Your task to perform on an android device: set the timer Image 0: 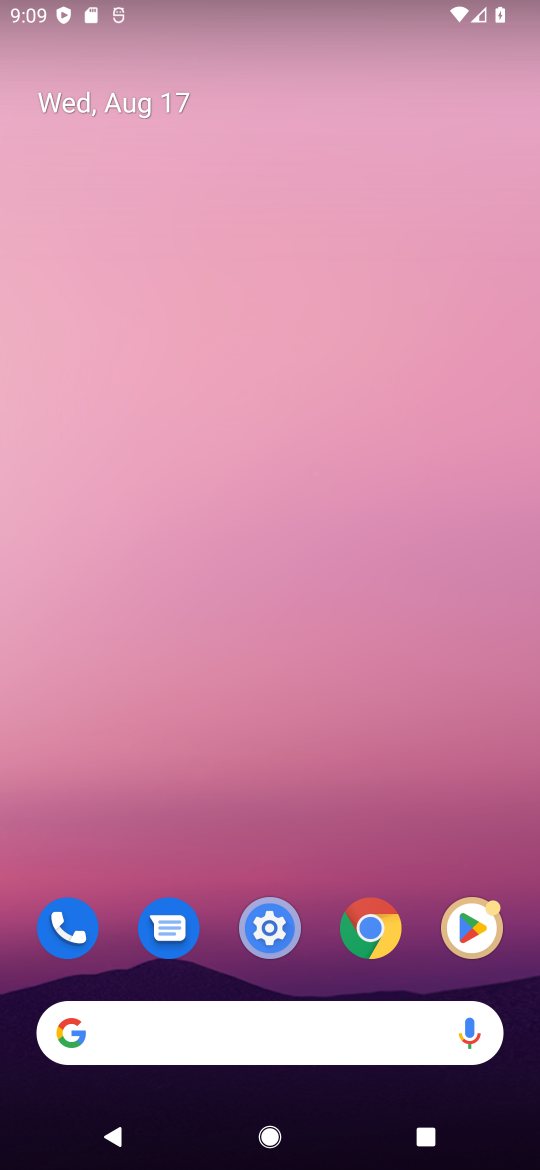
Step 0: drag from (382, 878) to (207, 45)
Your task to perform on an android device: set the timer Image 1: 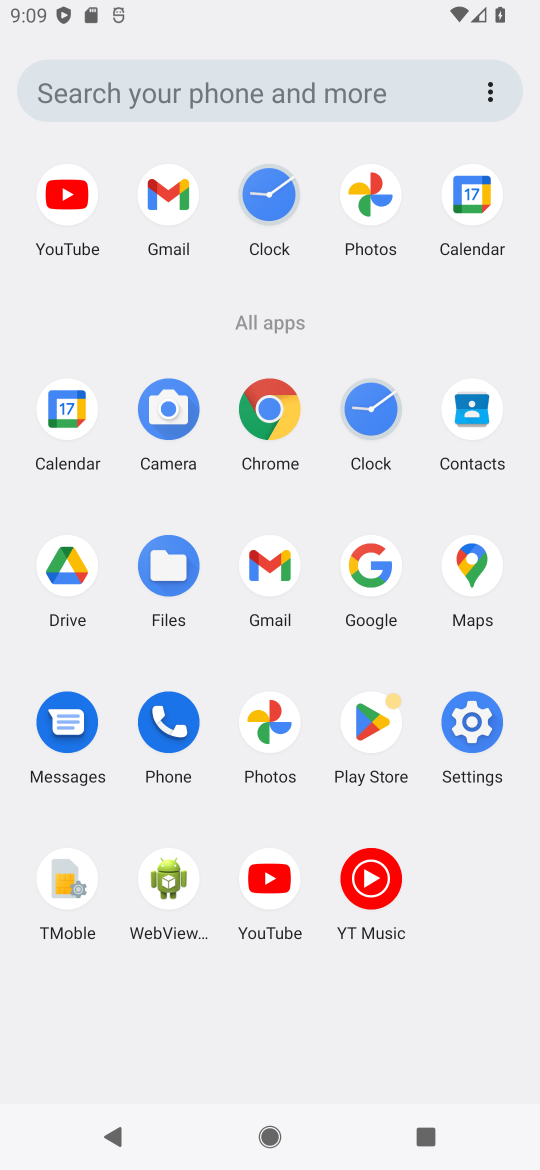
Step 1: click (377, 417)
Your task to perform on an android device: set the timer Image 2: 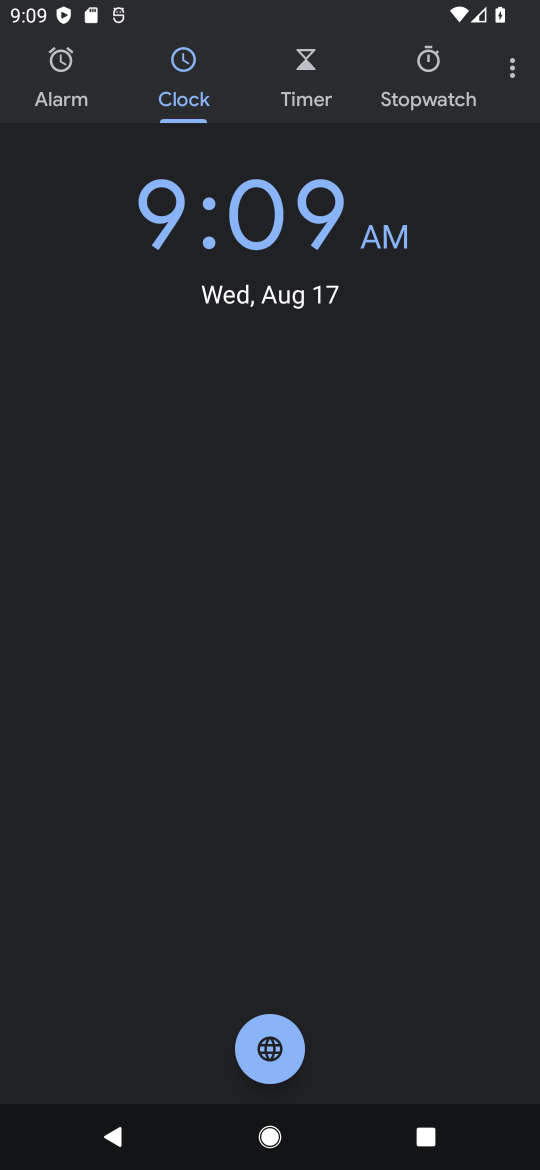
Step 2: click (302, 67)
Your task to perform on an android device: set the timer Image 3: 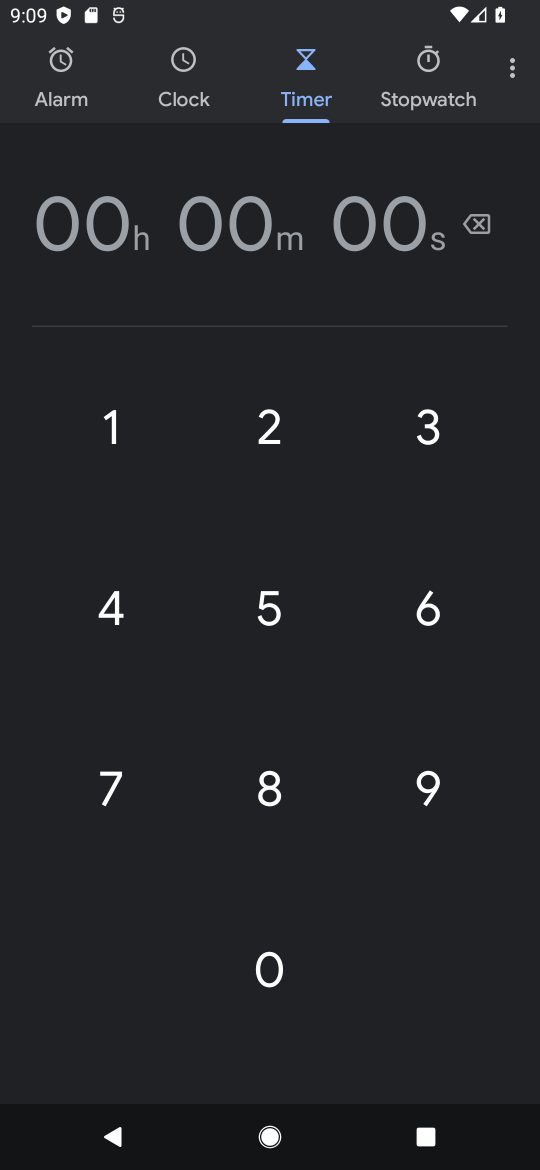
Step 3: click (289, 438)
Your task to perform on an android device: set the timer Image 4: 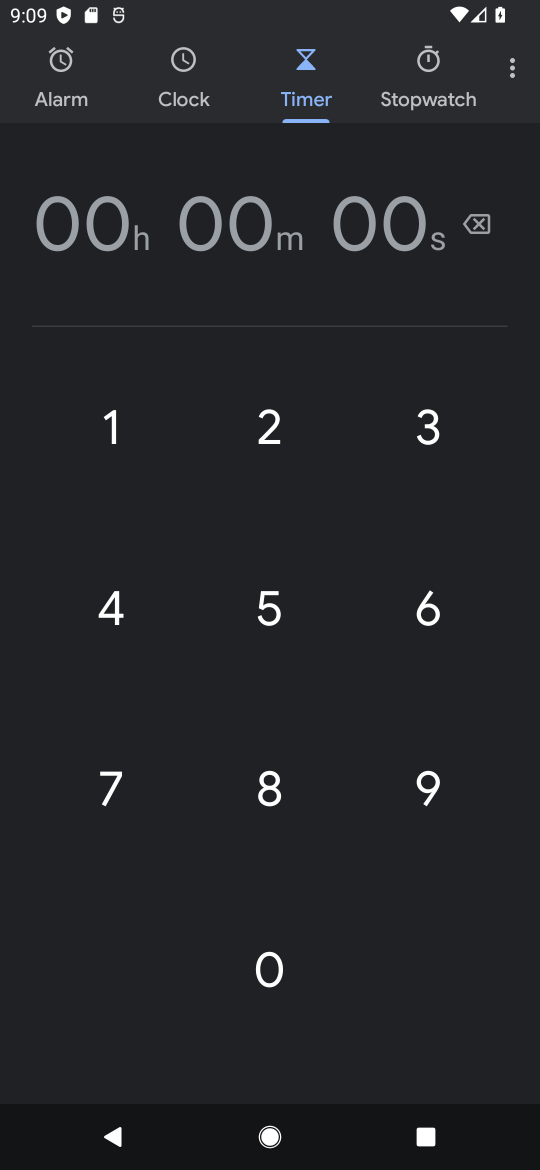
Step 4: click (289, 438)
Your task to perform on an android device: set the timer Image 5: 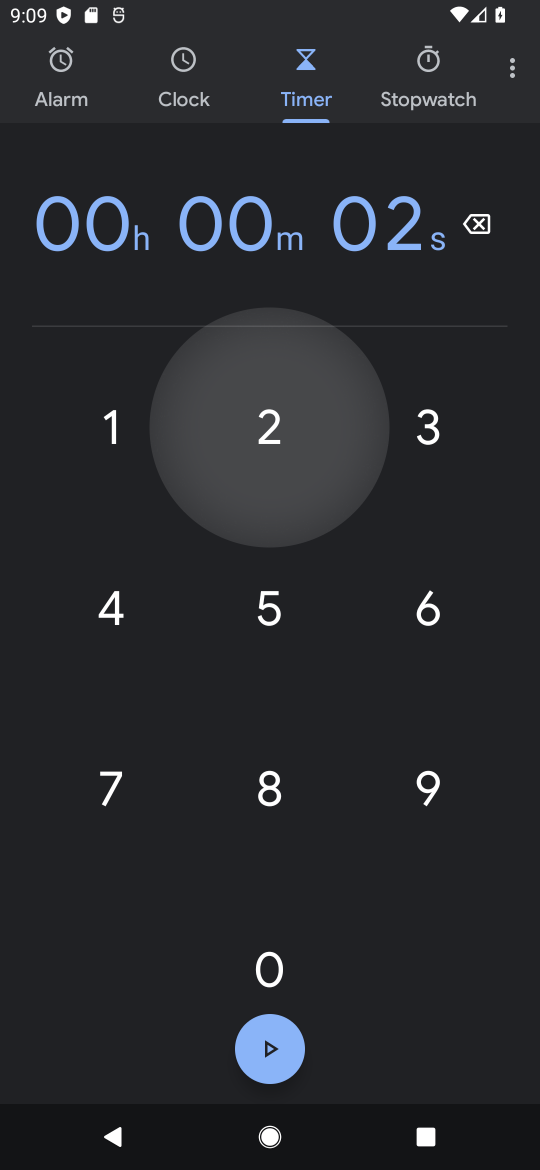
Step 5: click (289, 438)
Your task to perform on an android device: set the timer Image 6: 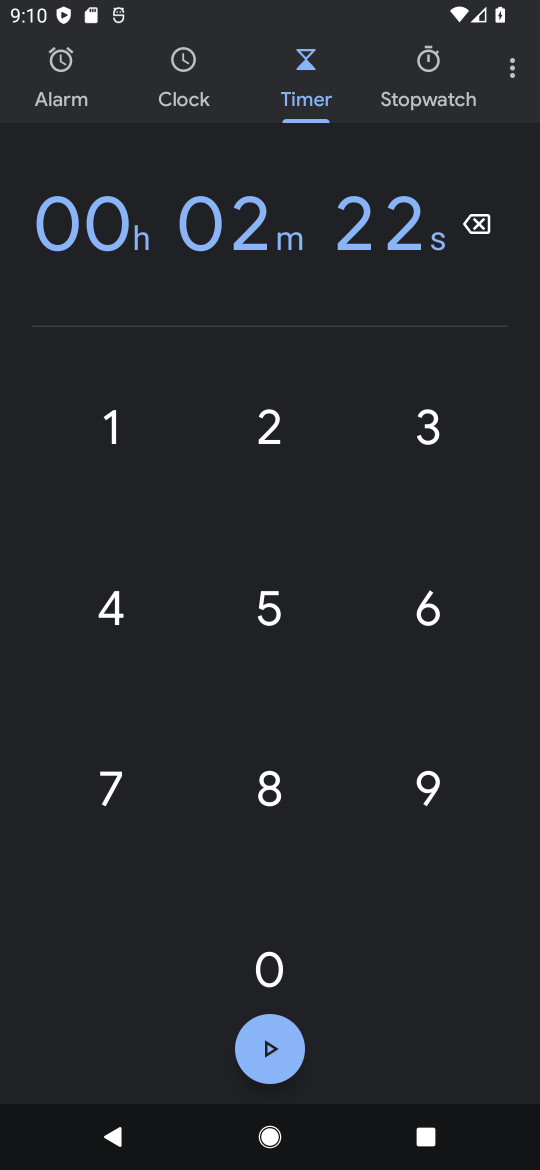
Step 6: click (268, 1041)
Your task to perform on an android device: set the timer Image 7: 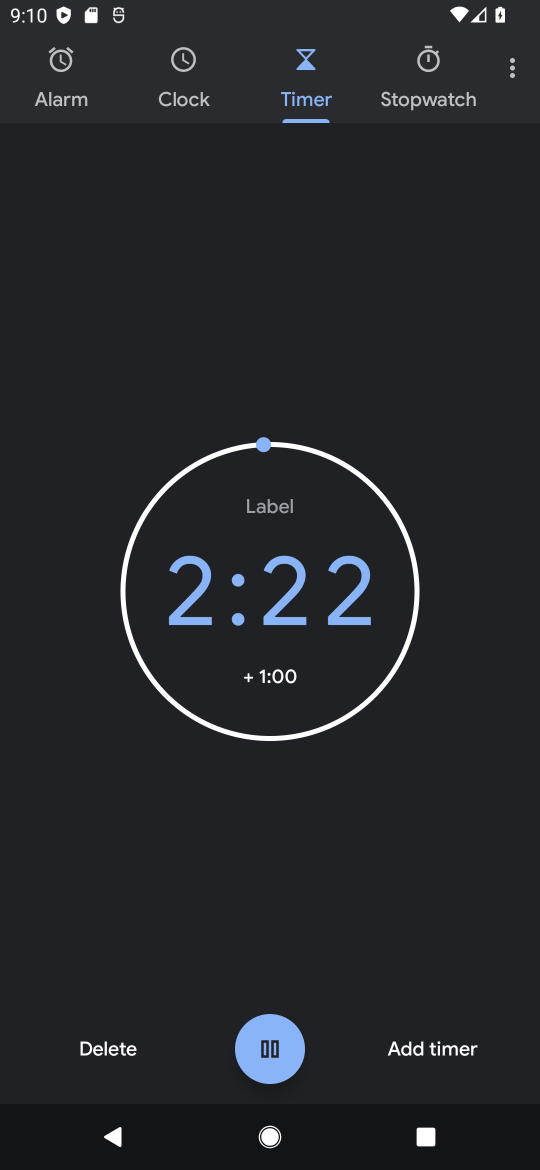
Step 7: task complete